Your task to perform on an android device: Open the stopwatch Image 0: 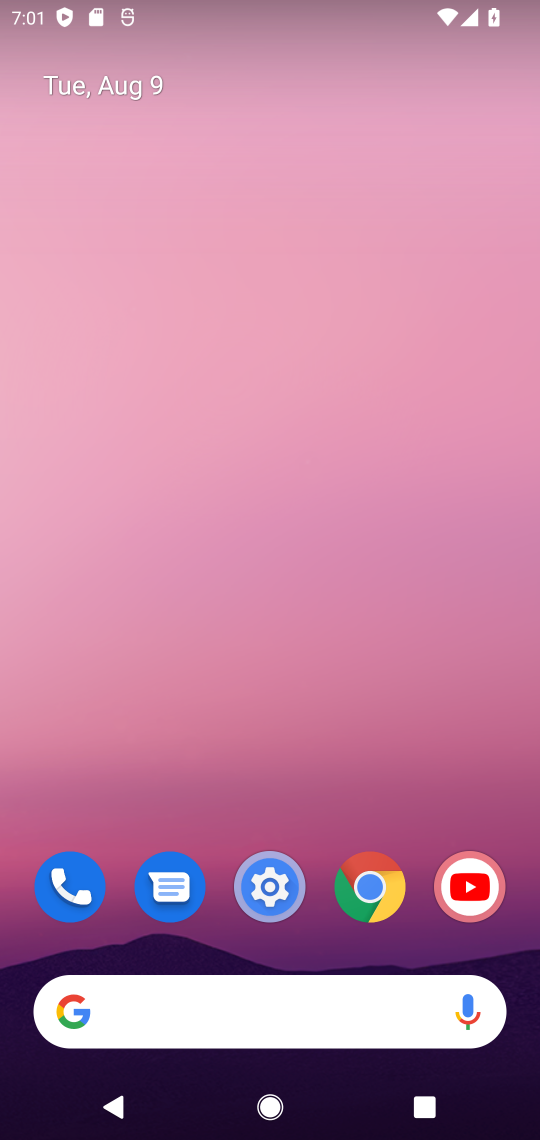
Step 0: drag from (237, 641) to (101, 333)
Your task to perform on an android device: Open the stopwatch Image 1: 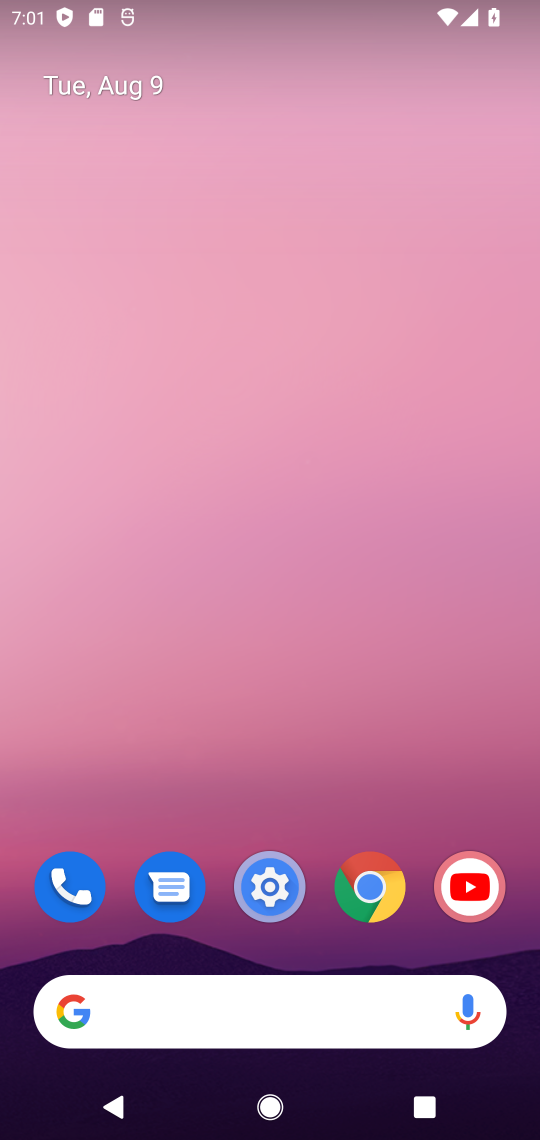
Step 1: drag from (185, 462) to (185, 307)
Your task to perform on an android device: Open the stopwatch Image 2: 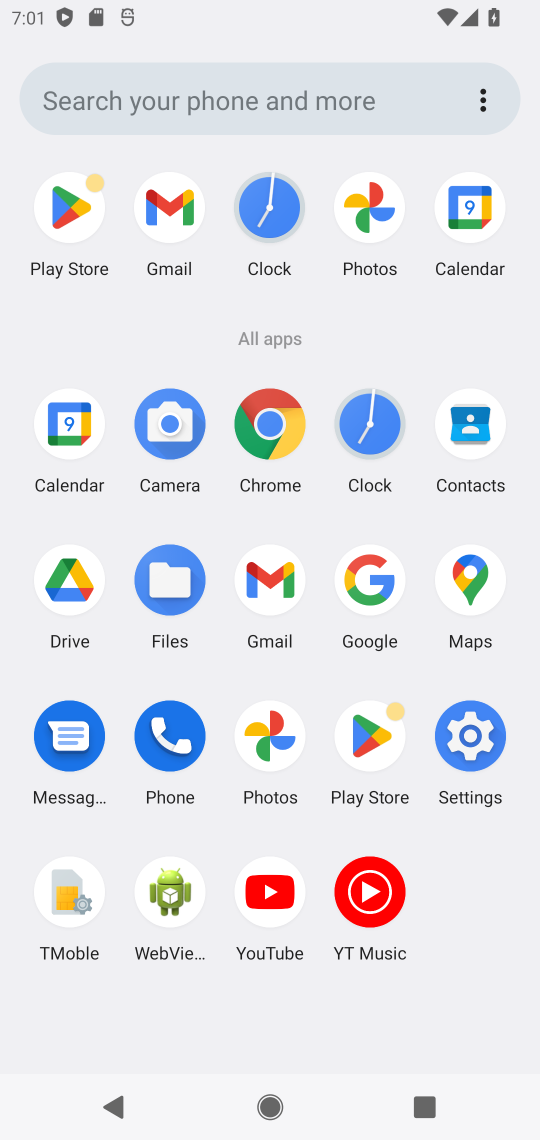
Step 2: click (383, 409)
Your task to perform on an android device: Open the stopwatch Image 3: 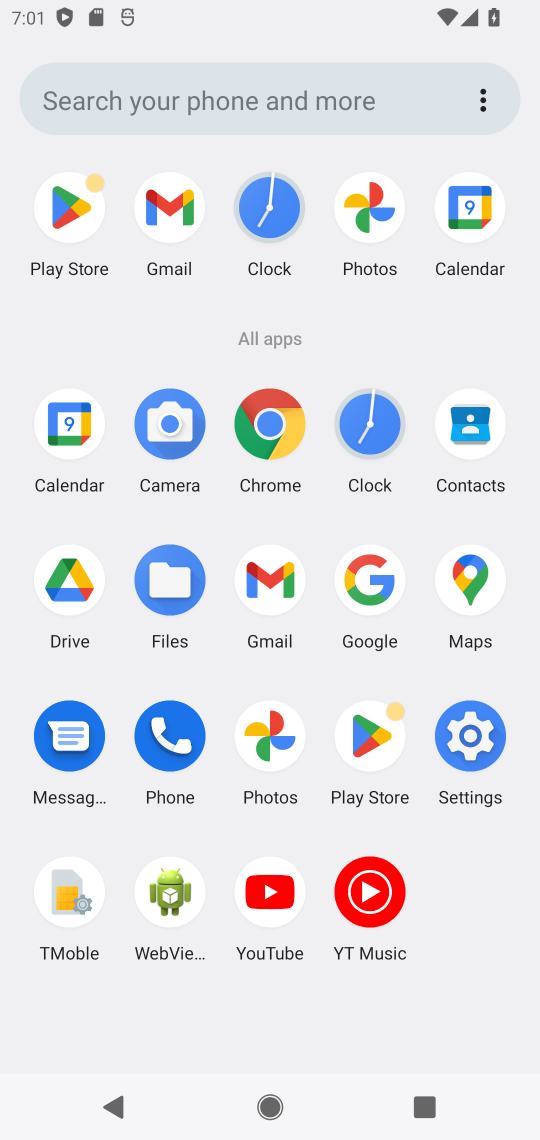
Step 3: click (373, 418)
Your task to perform on an android device: Open the stopwatch Image 4: 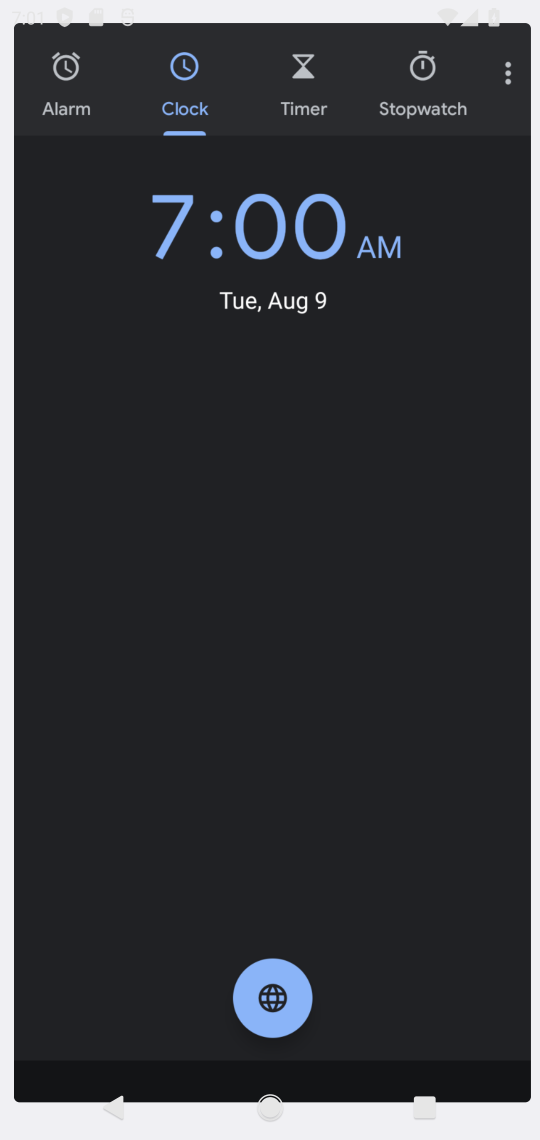
Step 4: click (376, 421)
Your task to perform on an android device: Open the stopwatch Image 5: 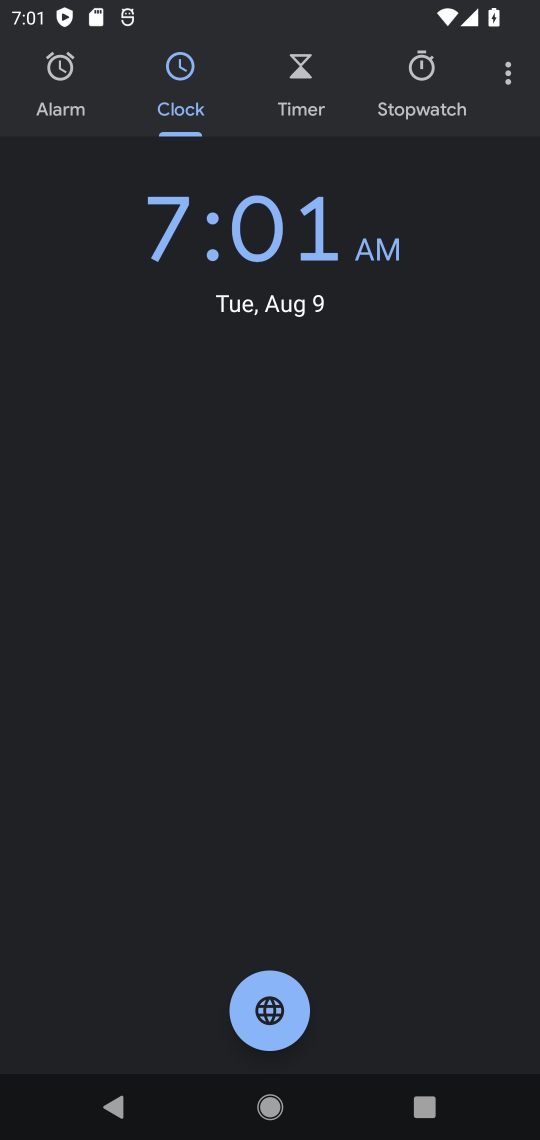
Step 5: click (439, 80)
Your task to perform on an android device: Open the stopwatch Image 6: 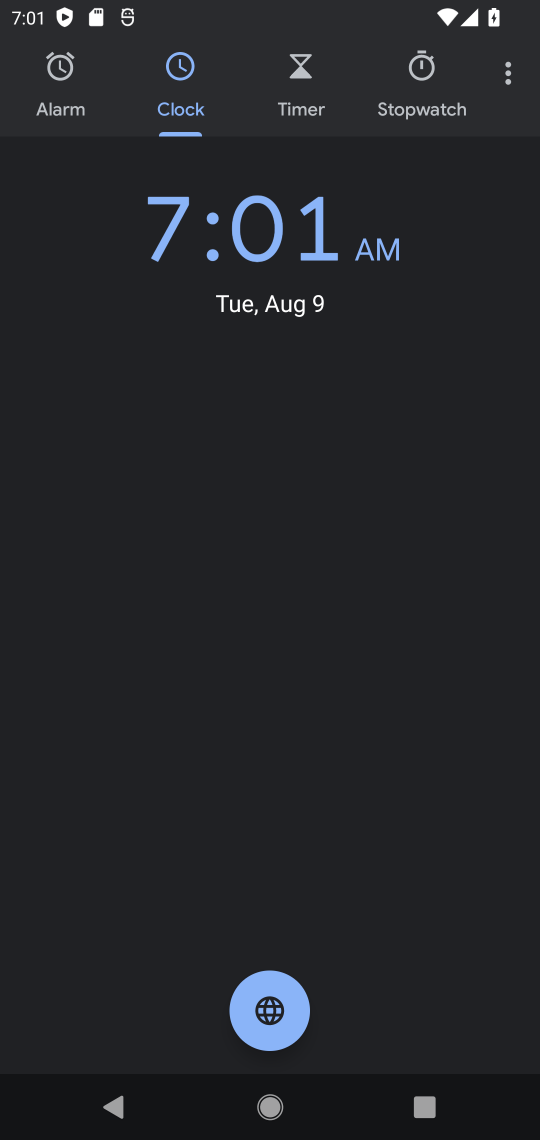
Step 6: click (422, 82)
Your task to perform on an android device: Open the stopwatch Image 7: 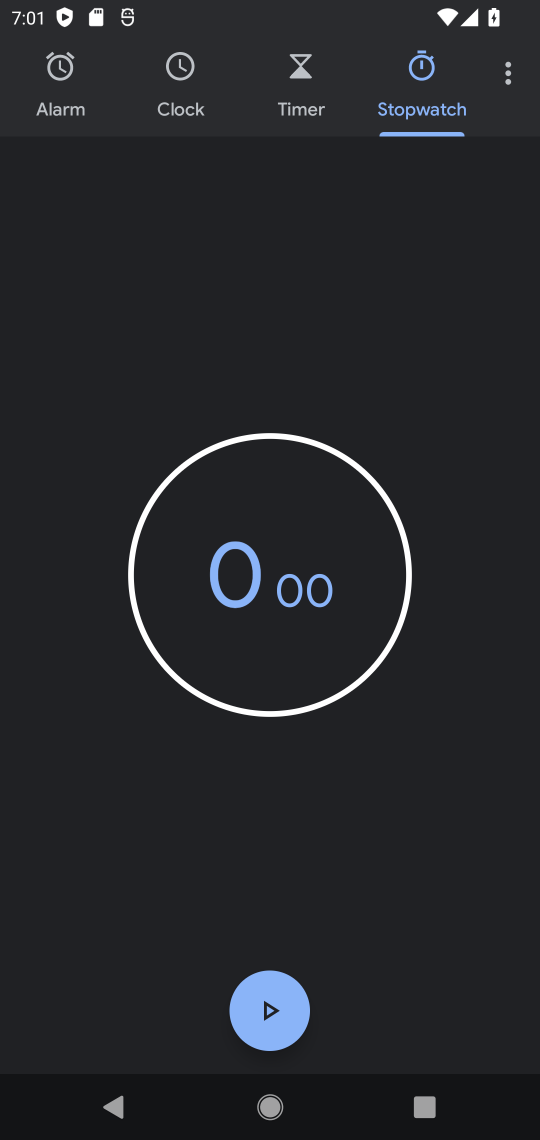
Step 7: click (272, 1011)
Your task to perform on an android device: Open the stopwatch Image 8: 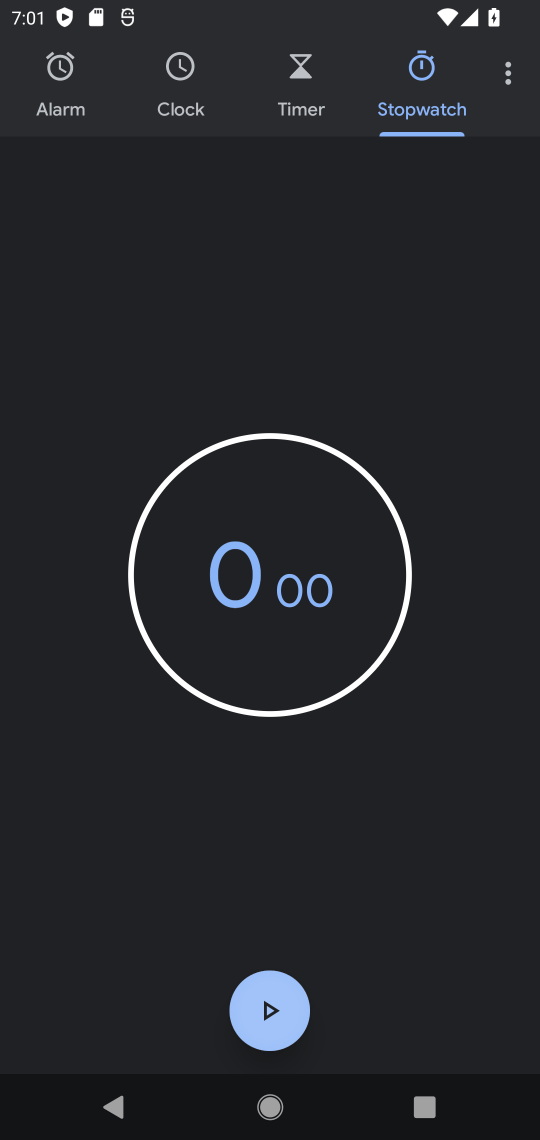
Step 8: click (276, 1015)
Your task to perform on an android device: Open the stopwatch Image 9: 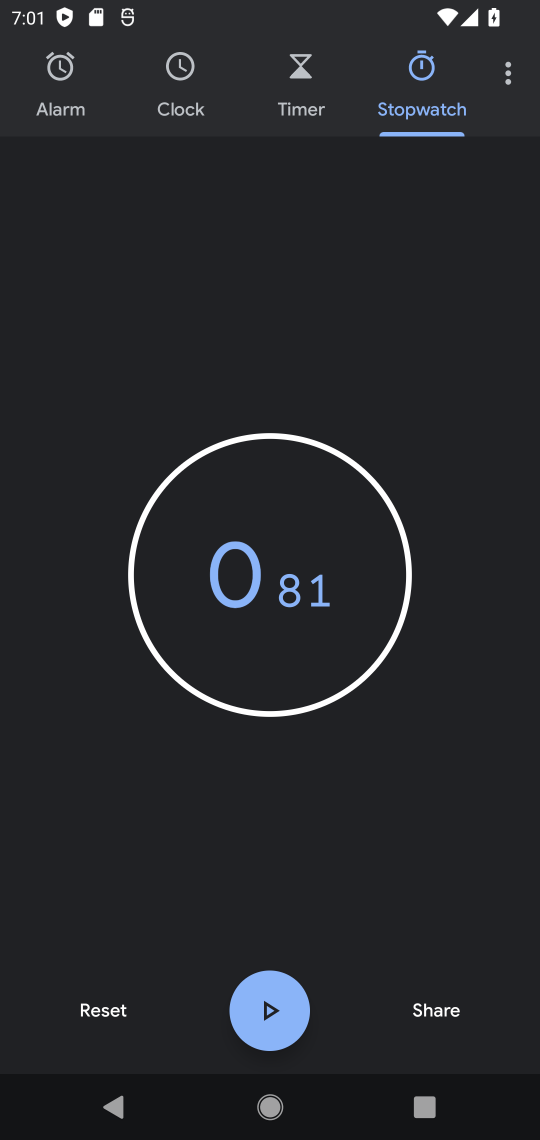
Step 9: click (256, 1009)
Your task to perform on an android device: Open the stopwatch Image 10: 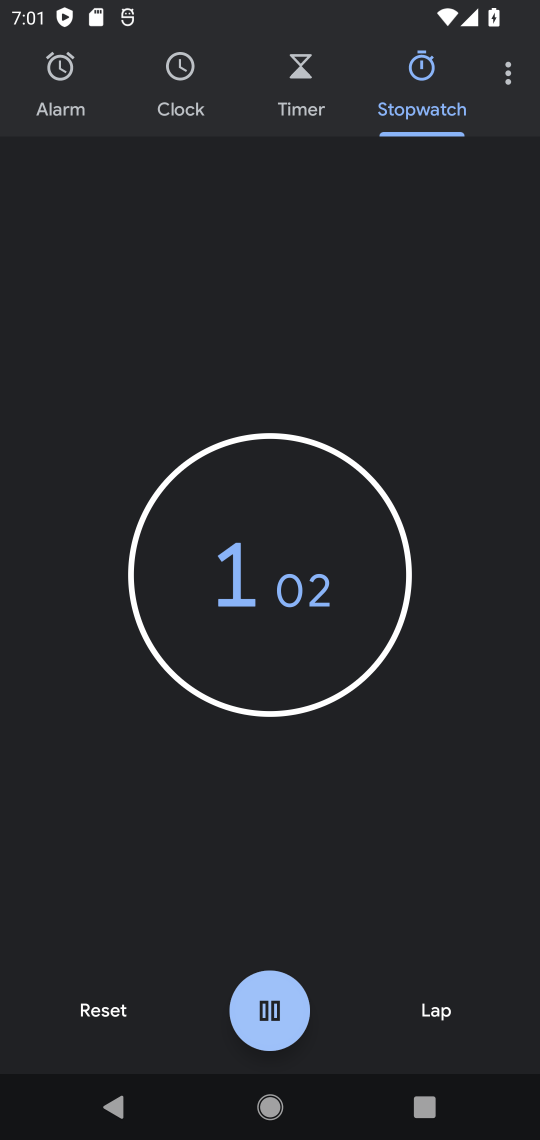
Step 10: click (277, 1044)
Your task to perform on an android device: Open the stopwatch Image 11: 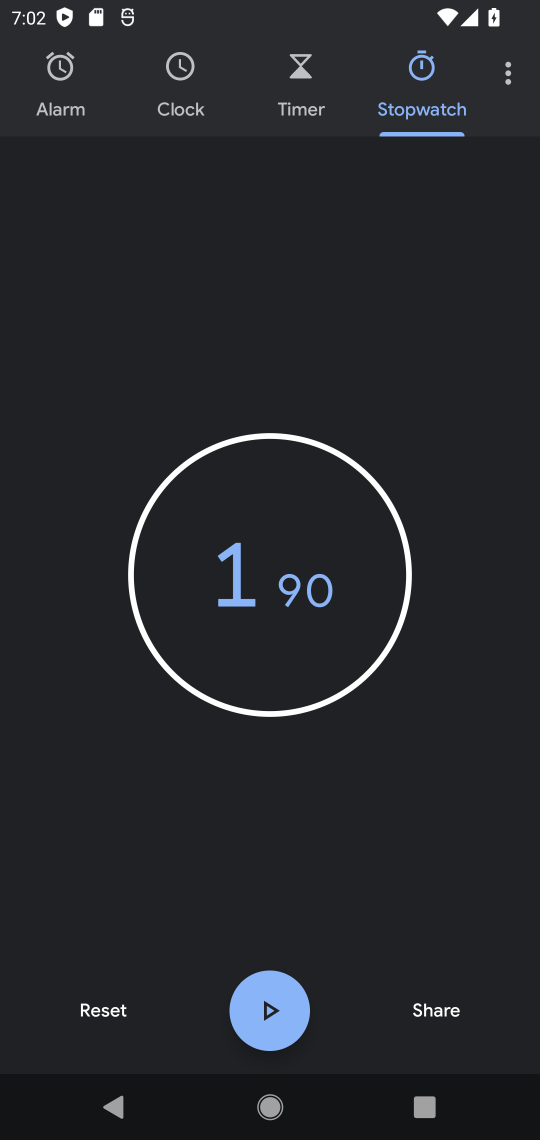
Step 11: task complete